Your task to perform on an android device: open app "Microsoft Authenticator" Image 0: 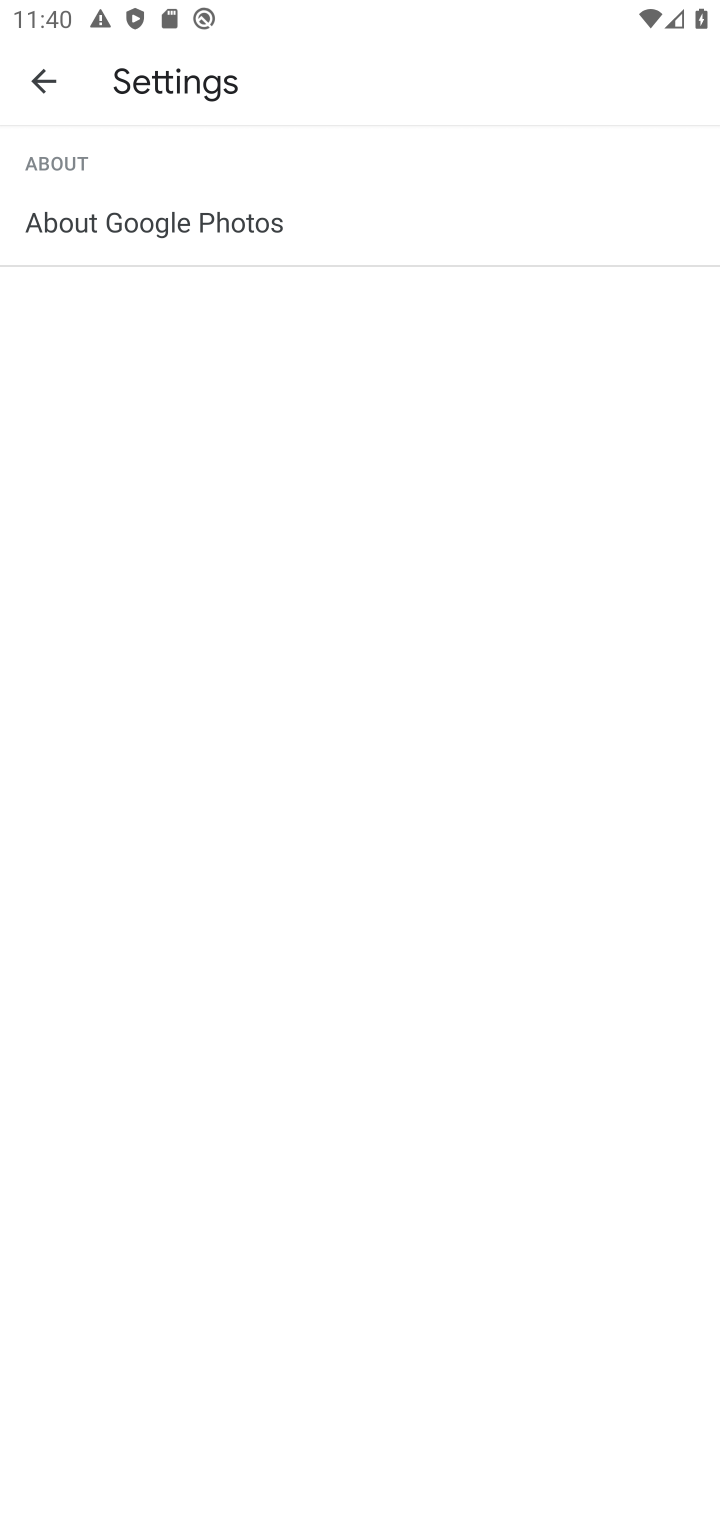
Step 0: press home button
Your task to perform on an android device: open app "Microsoft Authenticator" Image 1: 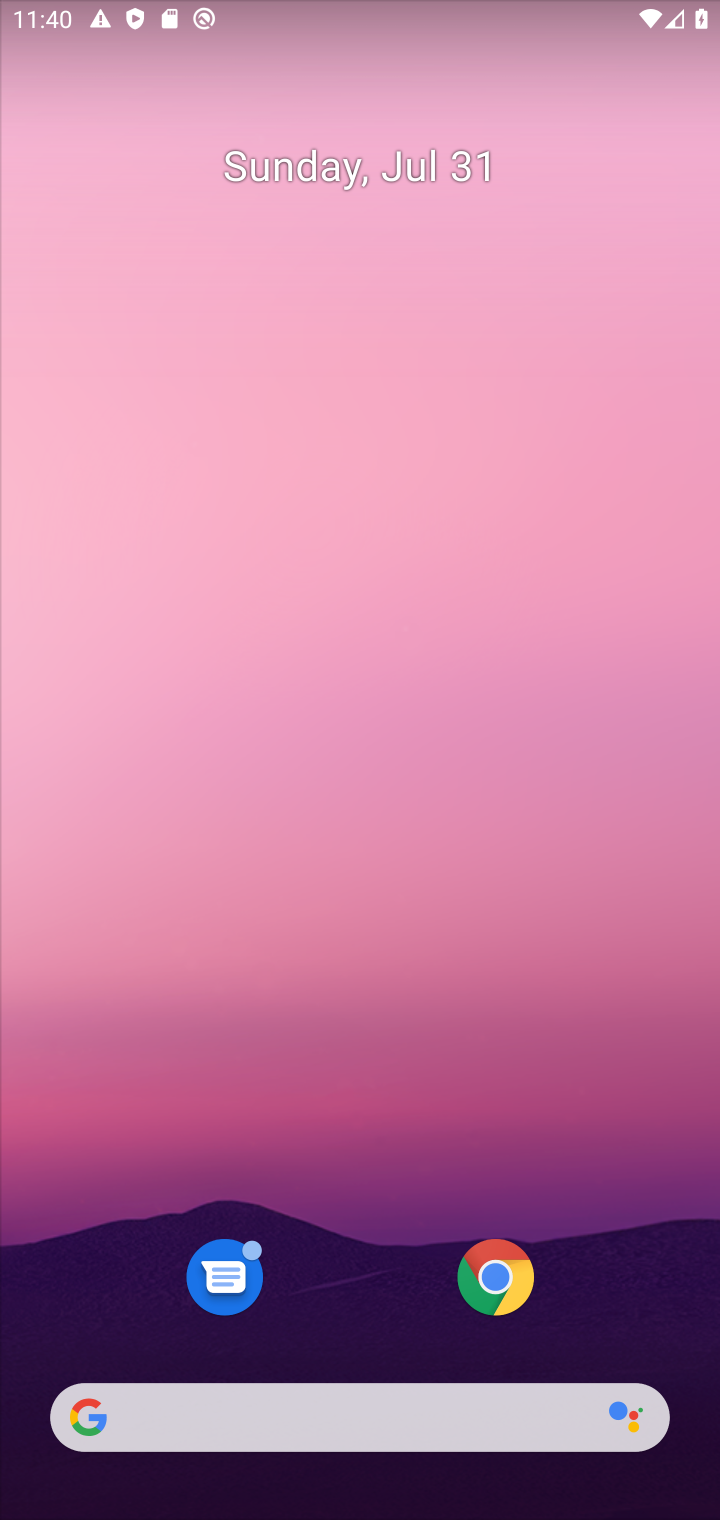
Step 1: drag from (349, 1272) to (180, 52)
Your task to perform on an android device: open app "Microsoft Authenticator" Image 2: 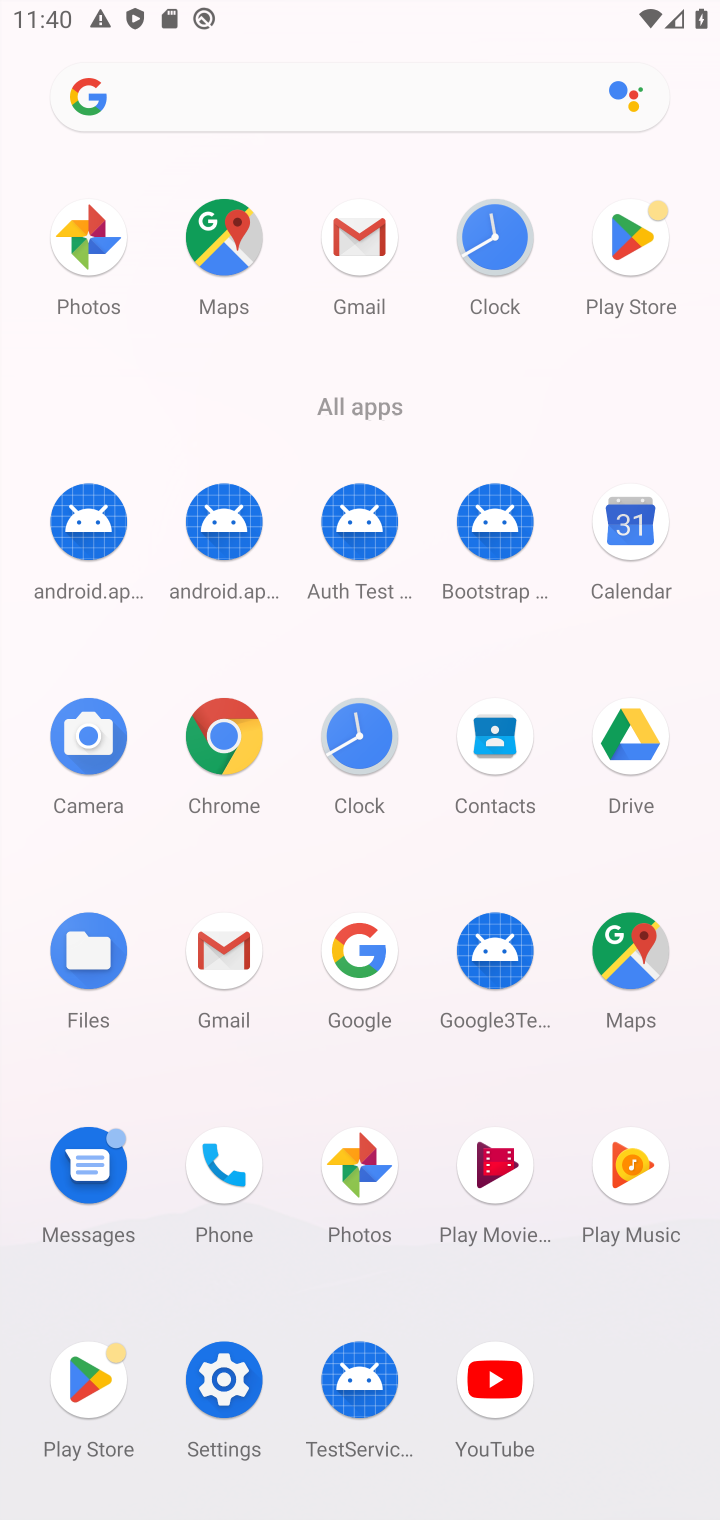
Step 2: click (637, 261)
Your task to perform on an android device: open app "Microsoft Authenticator" Image 3: 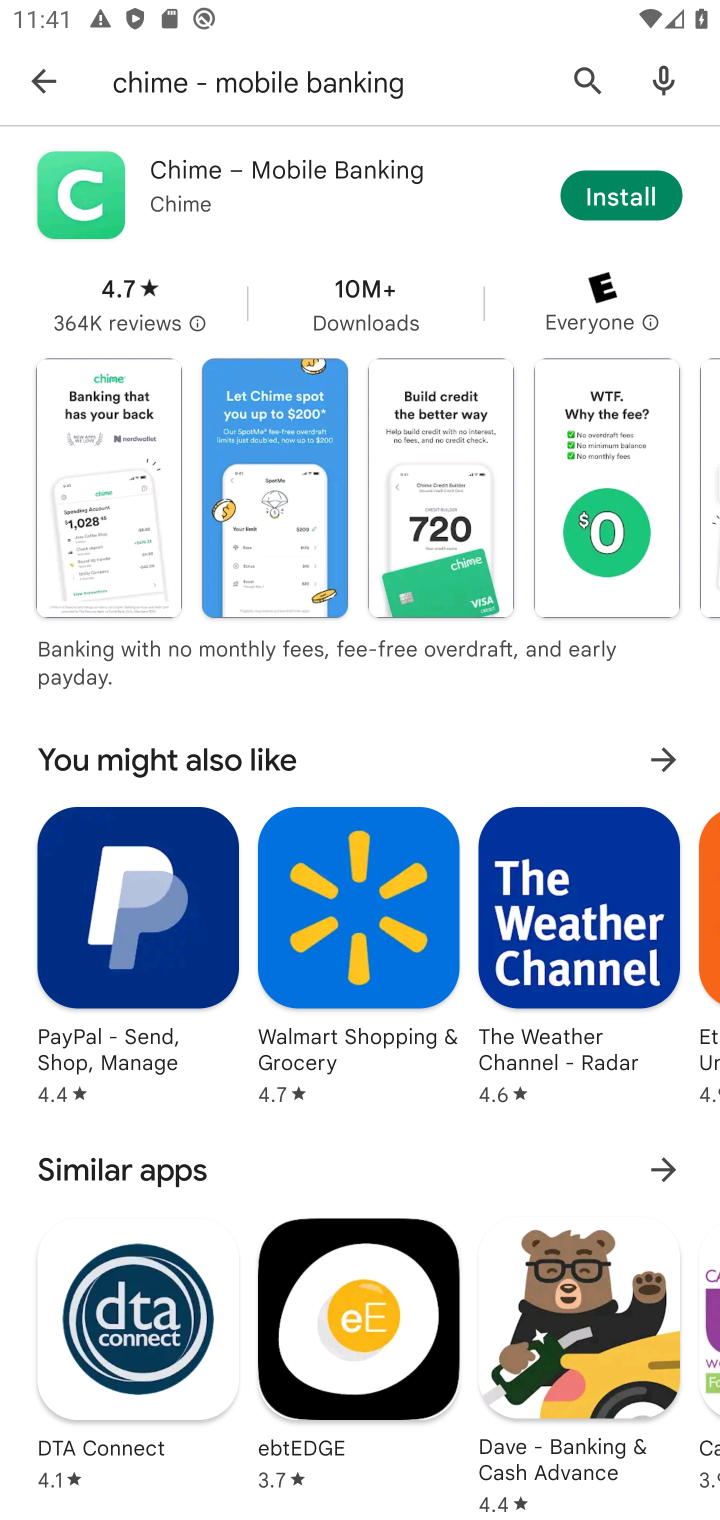
Step 3: click (580, 88)
Your task to perform on an android device: open app "Microsoft Authenticator" Image 4: 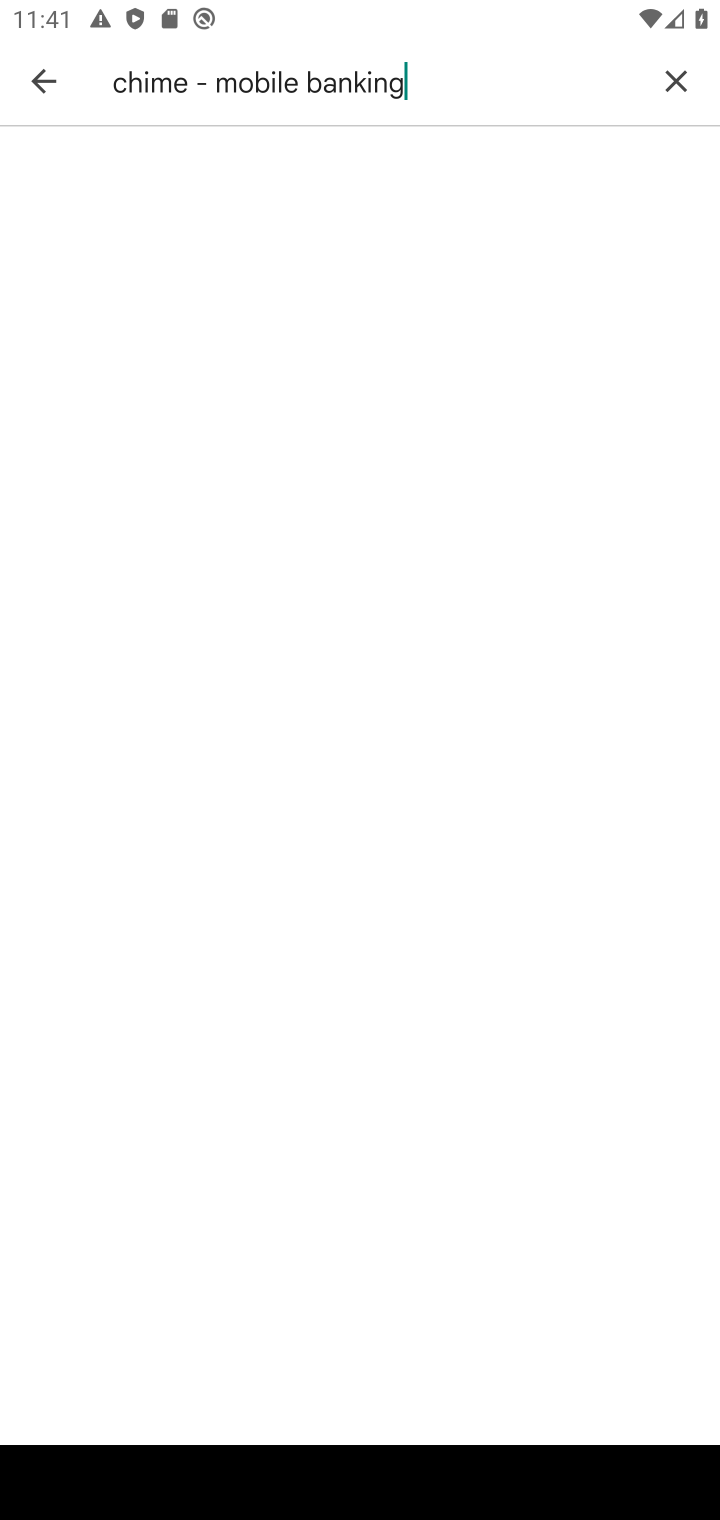
Step 4: click (684, 84)
Your task to perform on an android device: open app "Microsoft Authenticator" Image 5: 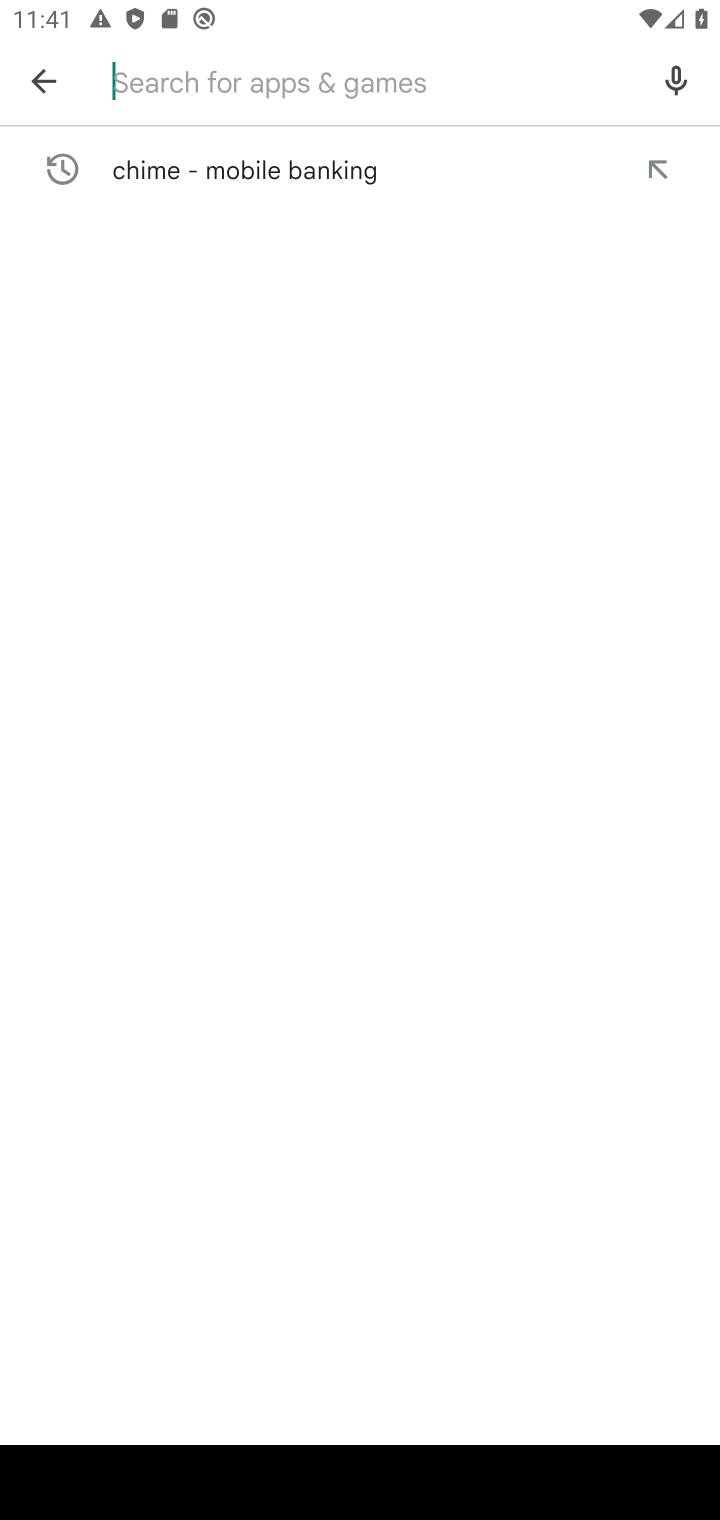
Step 5: type "microsoft authenticator"
Your task to perform on an android device: open app "Microsoft Authenticator" Image 6: 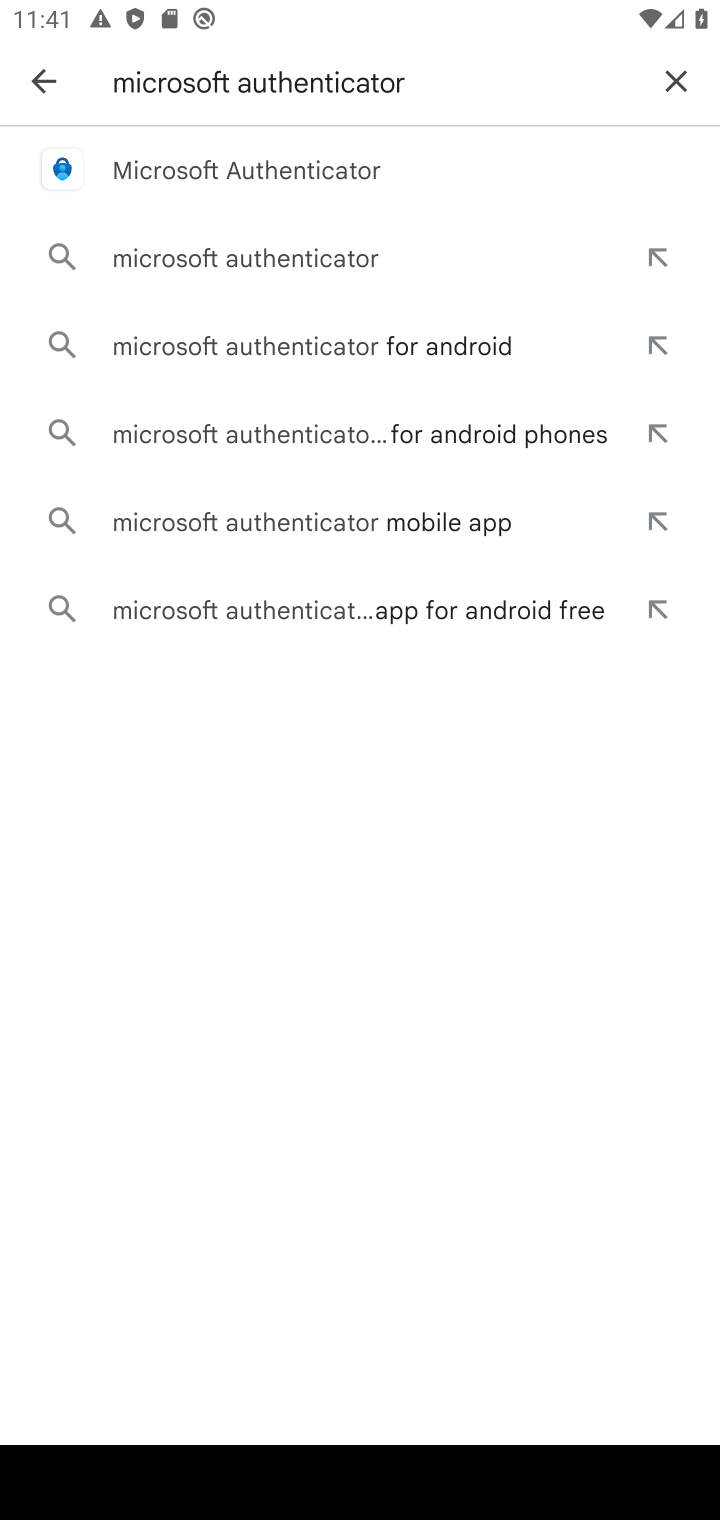
Step 6: click (111, 151)
Your task to perform on an android device: open app "Microsoft Authenticator" Image 7: 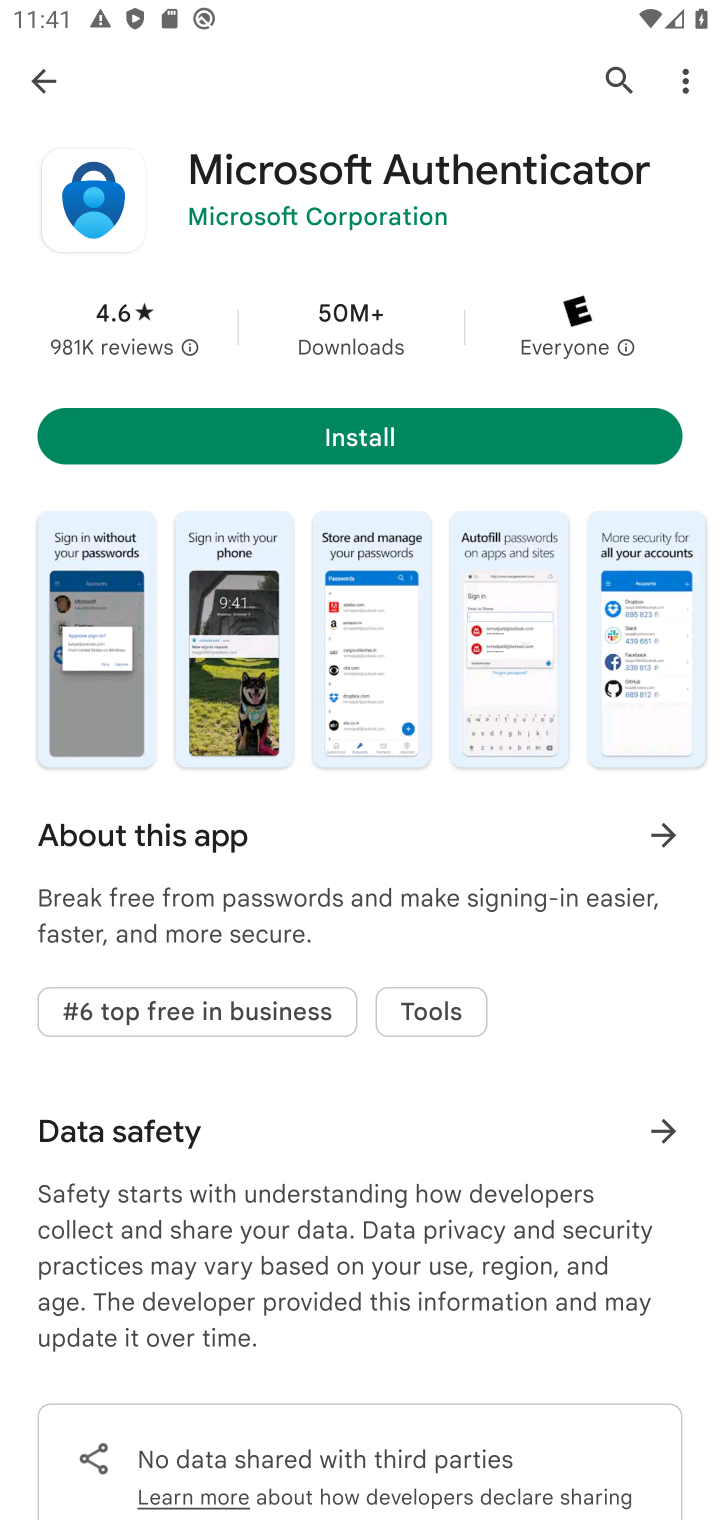
Step 7: task complete